Your task to perform on an android device: change alarm snooze length Image 0: 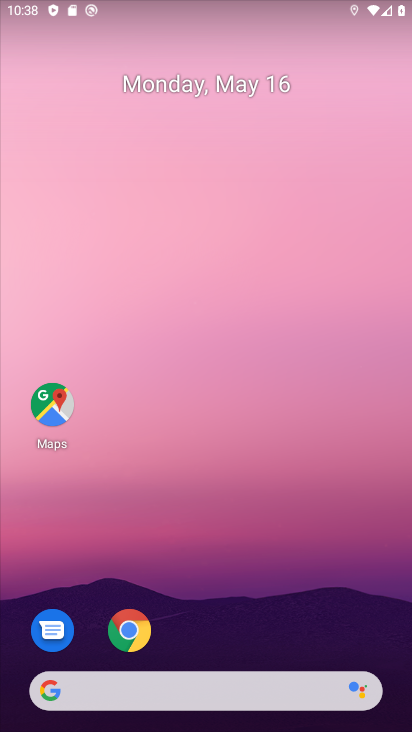
Step 0: drag from (221, 631) to (176, 75)
Your task to perform on an android device: change alarm snooze length Image 1: 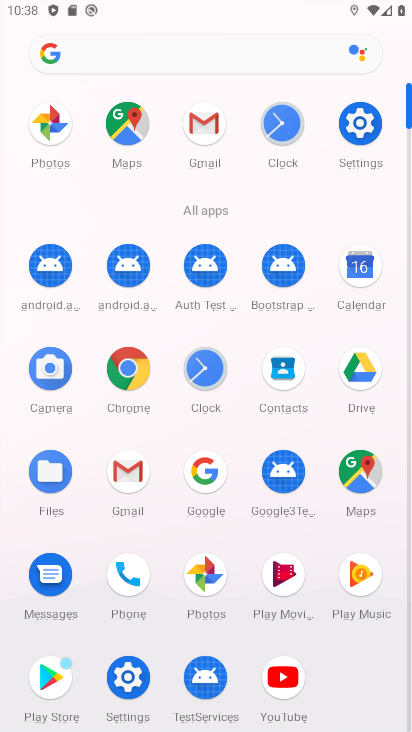
Step 1: click (346, 120)
Your task to perform on an android device: change alarm snooze length Image 2: 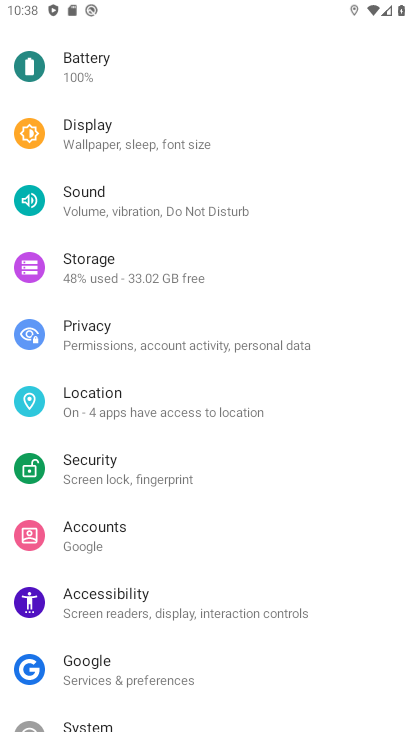
Step 2: press back button
Your task to perform on an android device: change alarm snooze length Image 3: 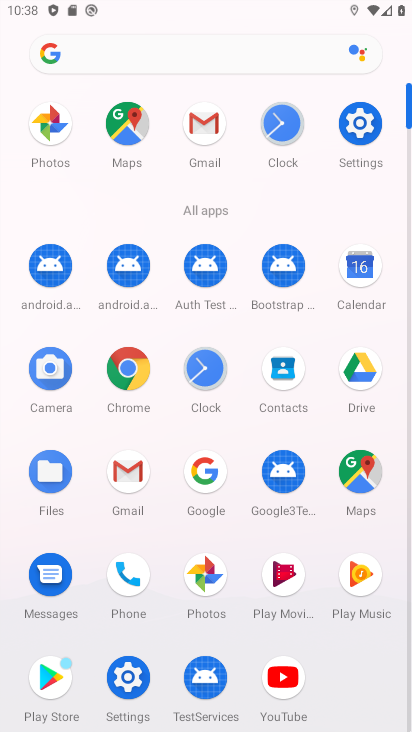
Step 3: click (288, 121)
Your task to perform on an android device: change alarm snooze length Image 4: 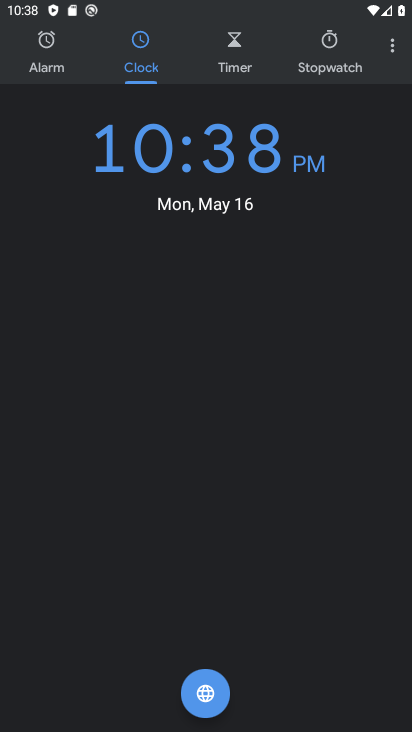
Step 4: click (391, 53)
Your task to perform on an android device: change alarm snooze length Image 5: 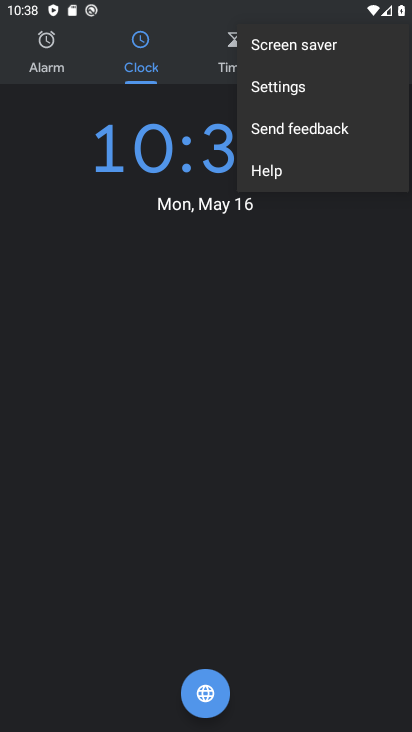
Step 5: click (376, 91)
Your task to perform on an android device: change alarm snooze length Image 6: 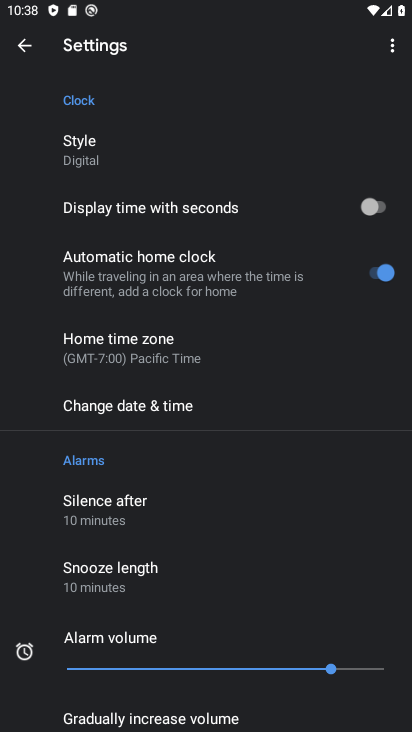
Step 6: click (251, 575)
Your task to perform on an android device: change alarm snooze length Image 7: 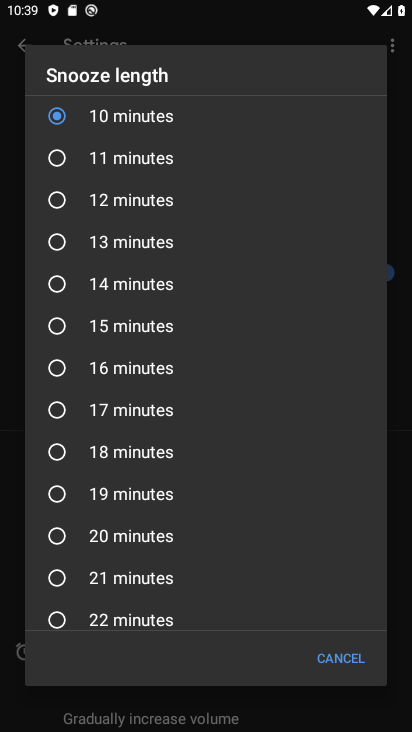
Step 7: click (109, 445)
Your task to perform on an android device: change alarm snooze length Image 8: 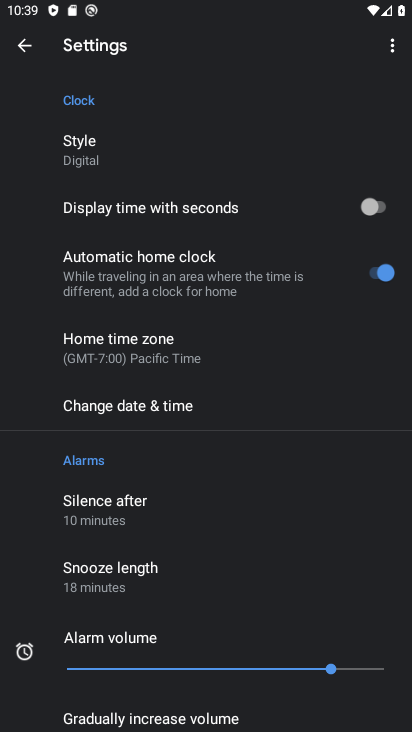
Step 8: task complete